Your task to perform on an android device: Go to network settings Image 0: 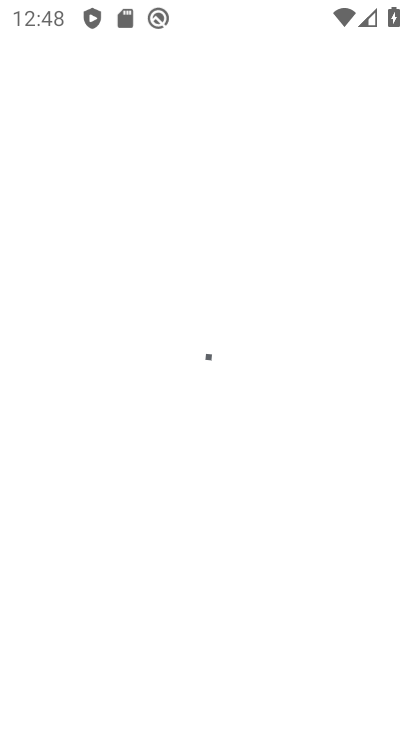
Step 0: press home button
Your task to perform on an android device: Go to network settings Image 1: 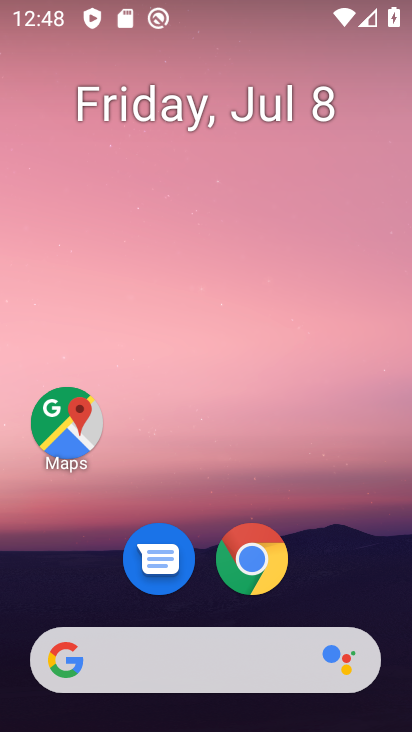
Step 1: drag from (196, 608) to (126, 53)
Your task to perform on an android device: Go to network settings Image 2: 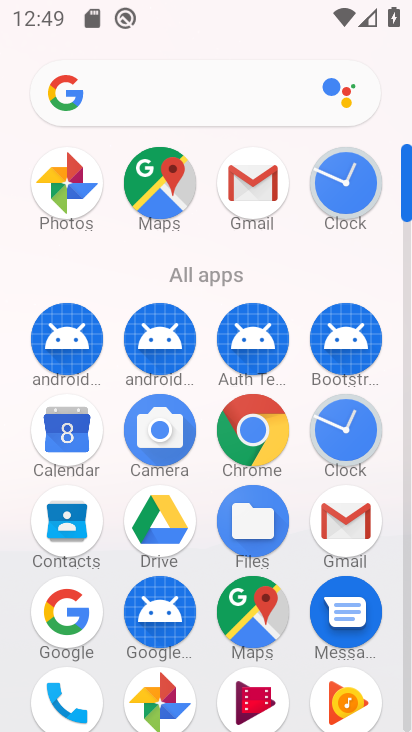
Step 2: drag from (200, 595) to (205, 57)
Your task to perform on an android device: Go to network settings Image 3: 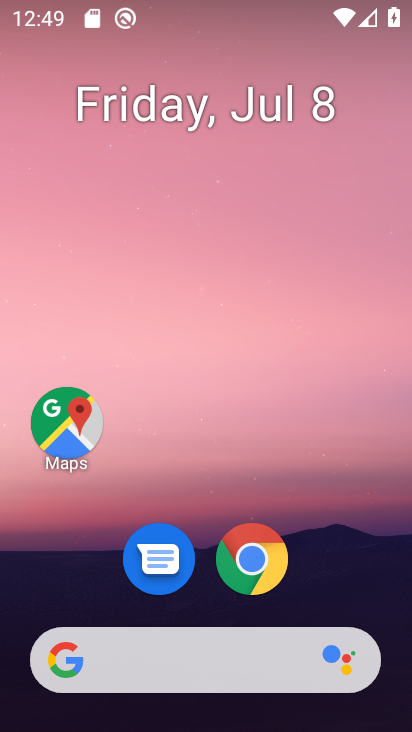
Step 3: drag from (211, 619) to (176, 19)
Your task to perform on an android device: Go to network settings Image 4: 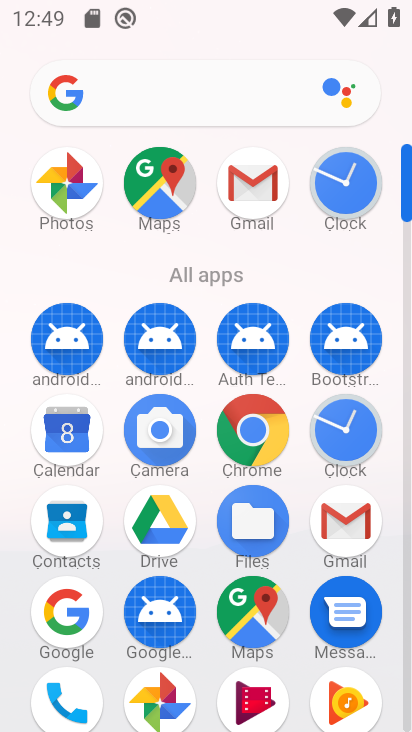
Step 4: drag from (110, 669) to (92, 8)
Your task to perform on an android device: Go to network settings Image 5: 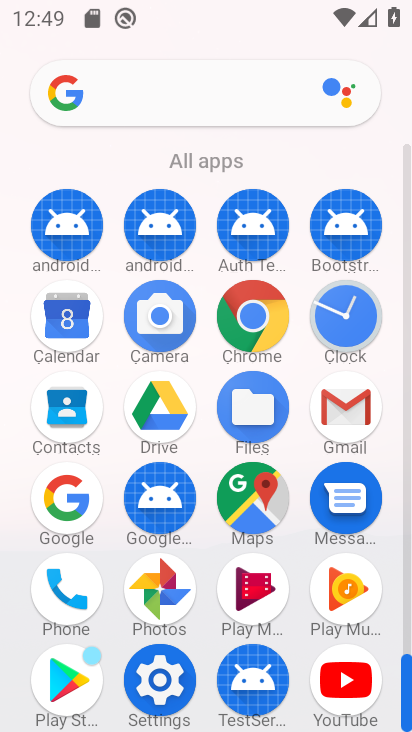
Step 5: click (171, 686)
Your task to perform on an android device: Go to network settings Image 6: 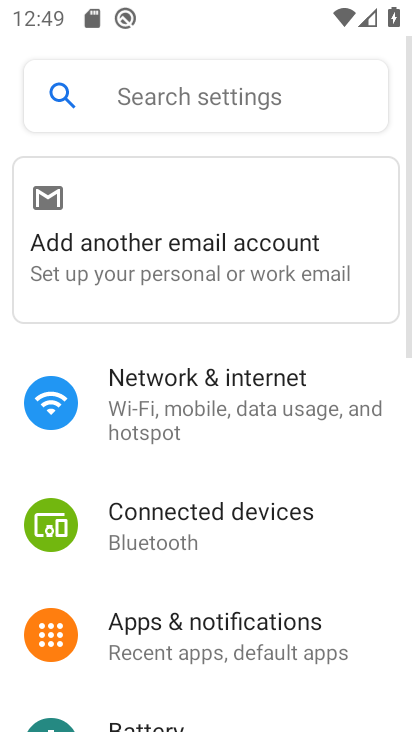
Step 6: click (197, 428)
Your task to perform on an android device: Go to network settings Image 7: 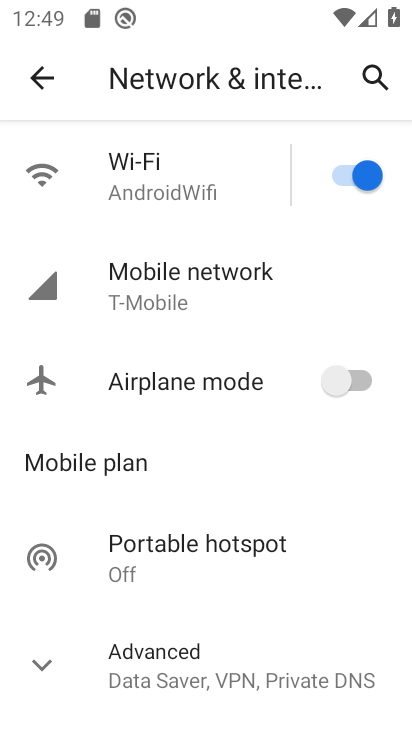
Step 7: click (185, 289)
Your task to perform on an android device: Go to network settings Image 8: 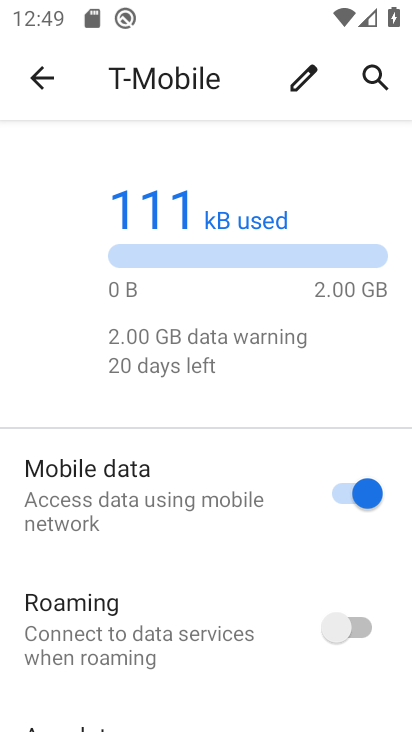
Step 8: task complete